Your task to perform on an android device: Search for Italian restaurants on Maps Image 0: 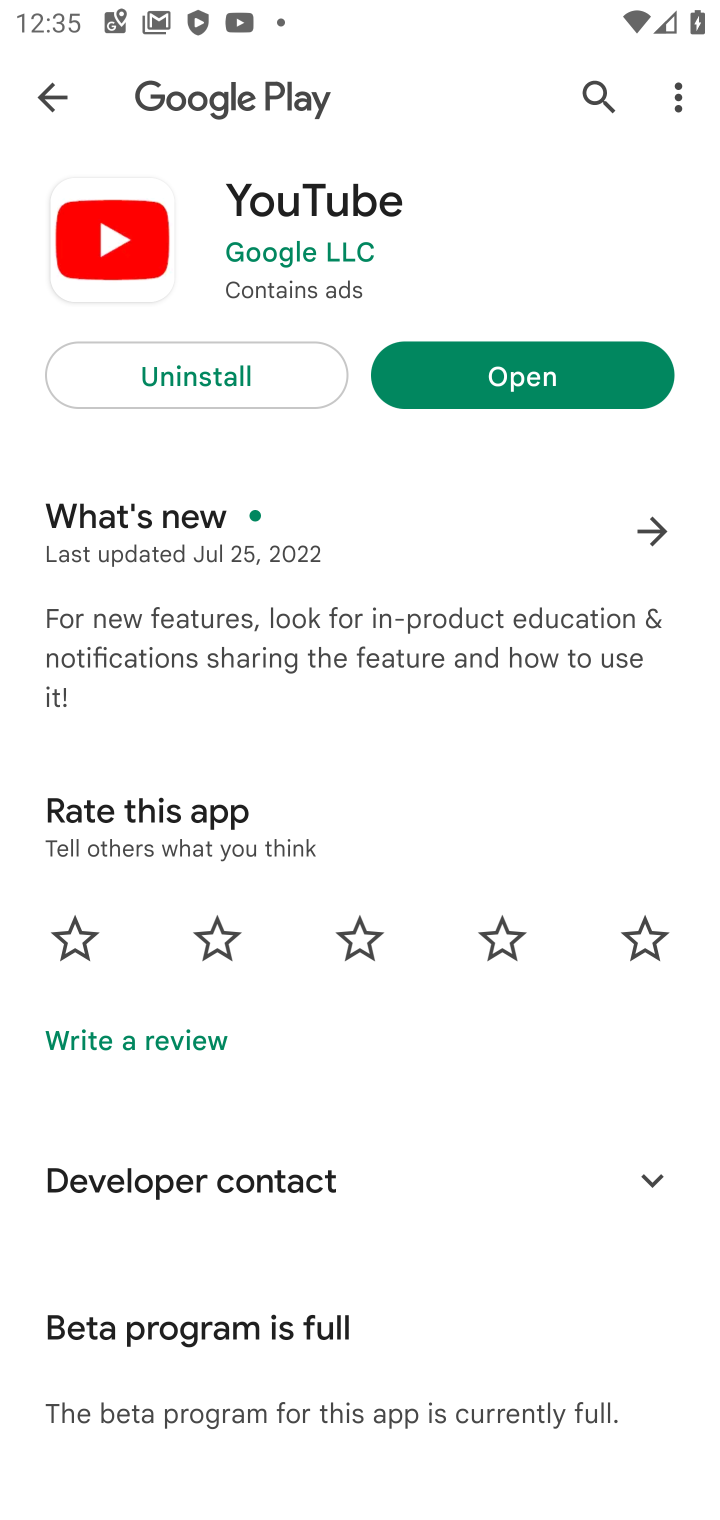
Step 0: press home button
Your task to perform on an android device: Search for Italian restaurants on Maps Image 1: 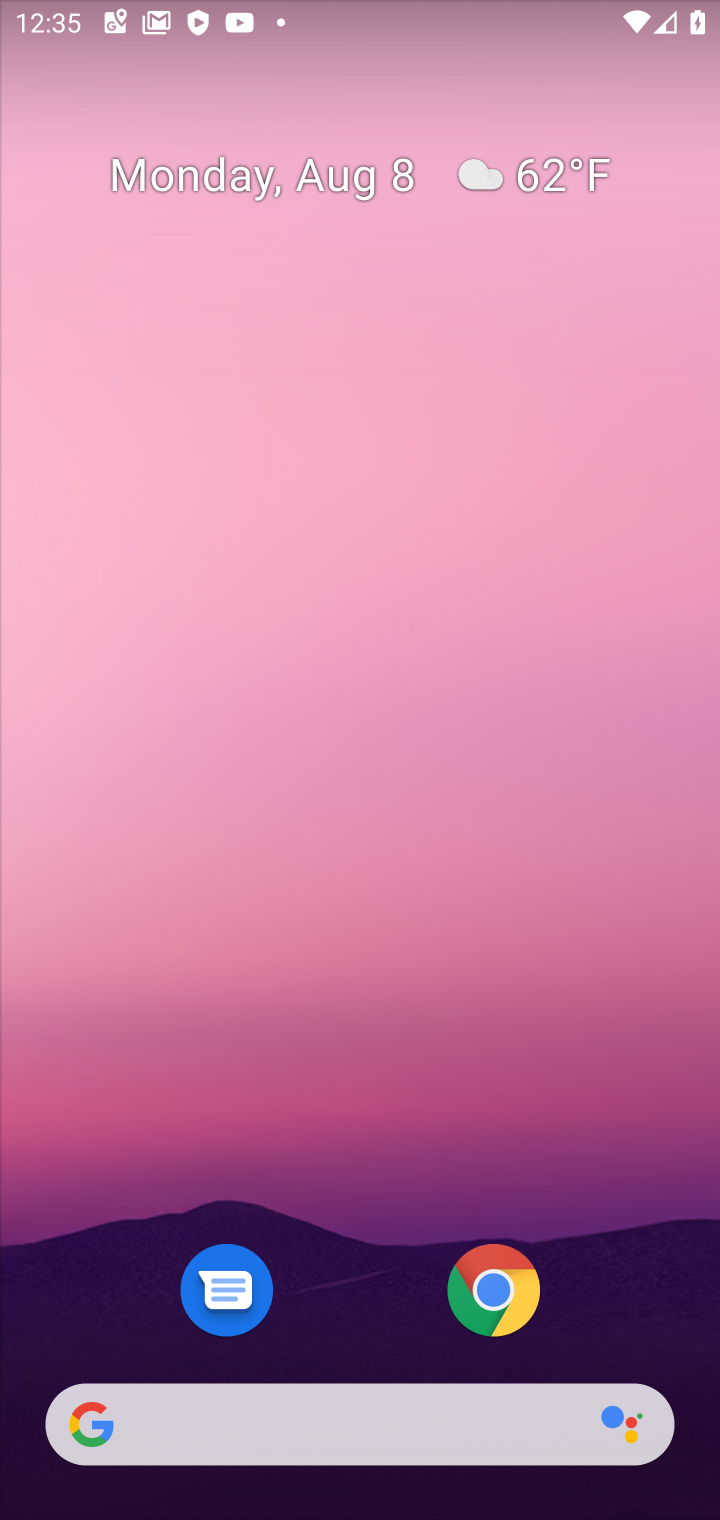
Step 1: drag from (355, 1233) to (415, 56)
Your task to perform on an android device: Search for Italian restaurants on Maps Image 2: 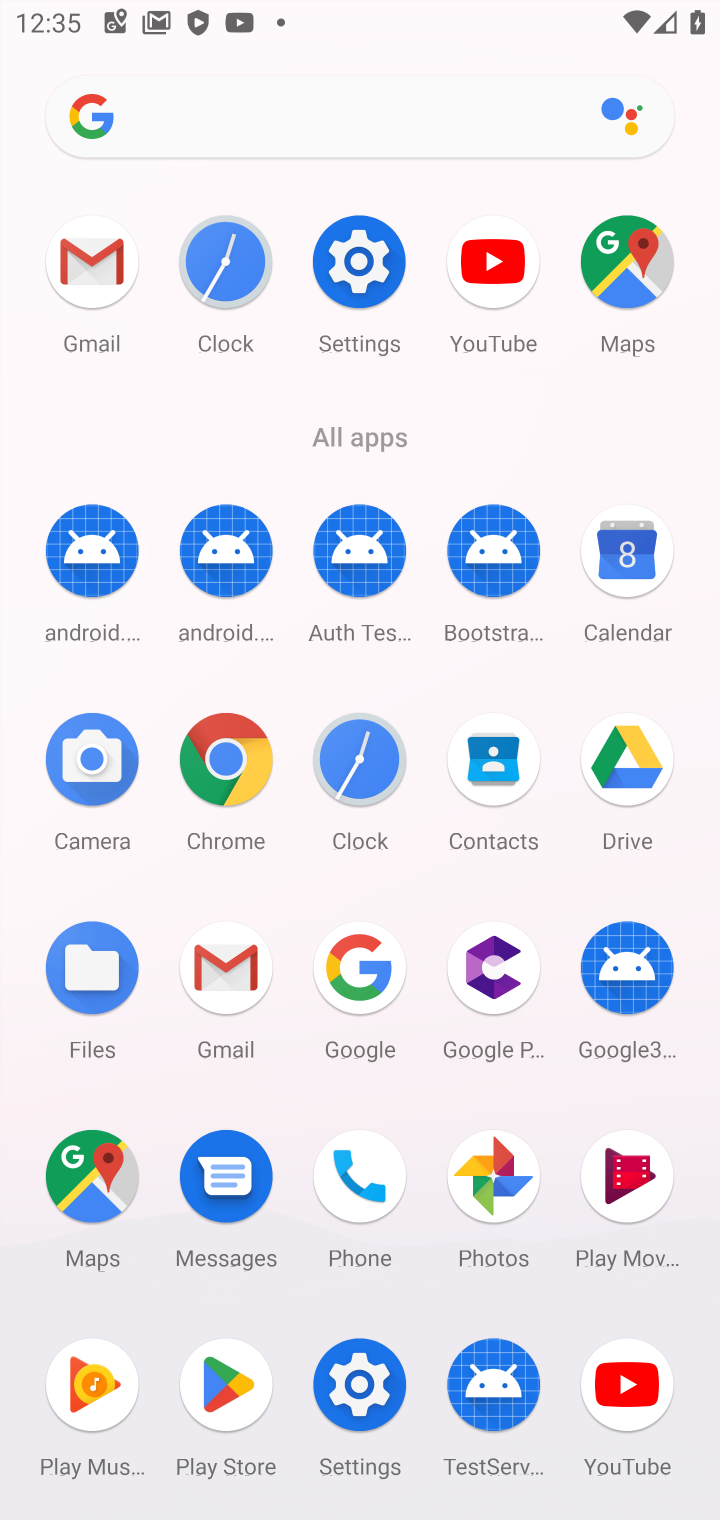
Step 2: click (89, 1196)
Your task to perform on an android device: Search for Italian restaurants on Maps Image 3: 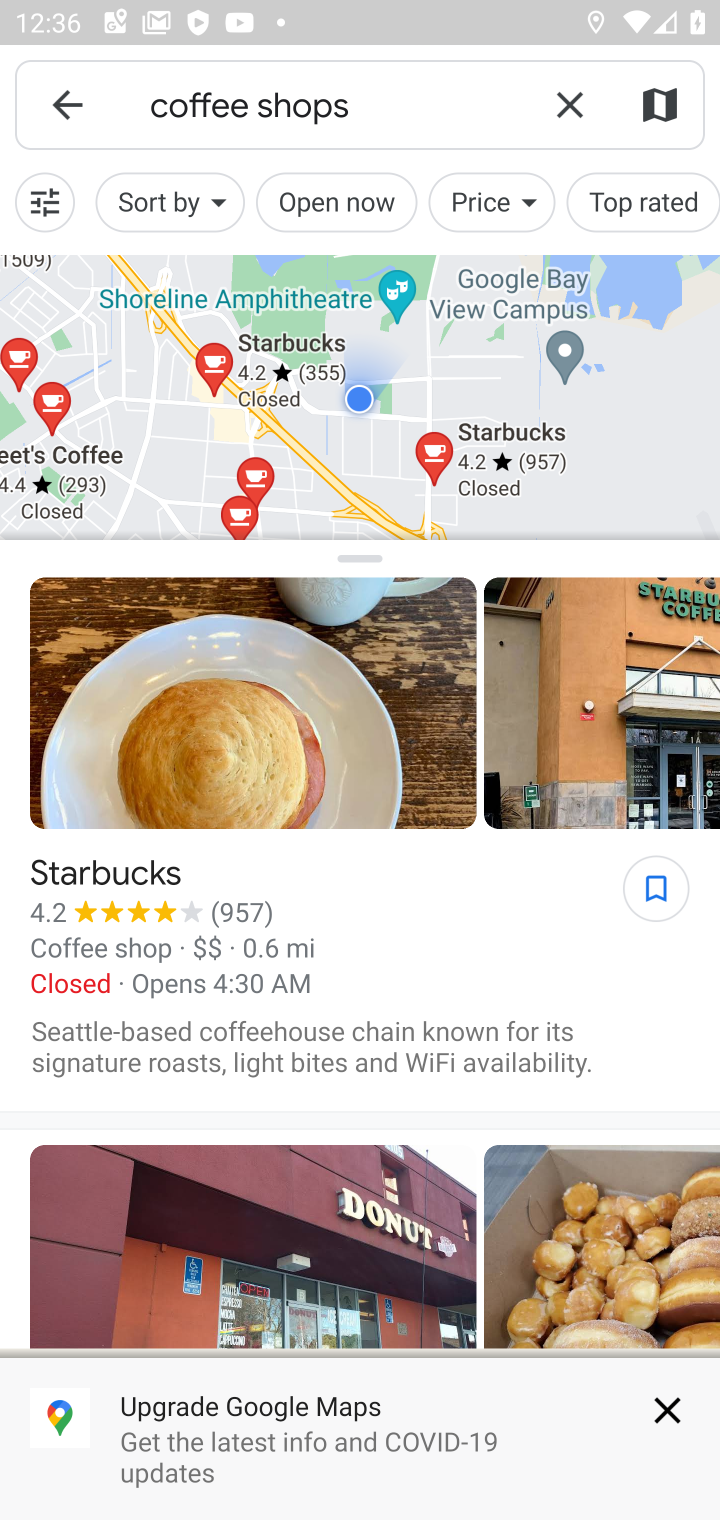
Step 3: click (568, 100)
Your task to perform on an android device: Search for Italian restaurants on Maps Image 4: 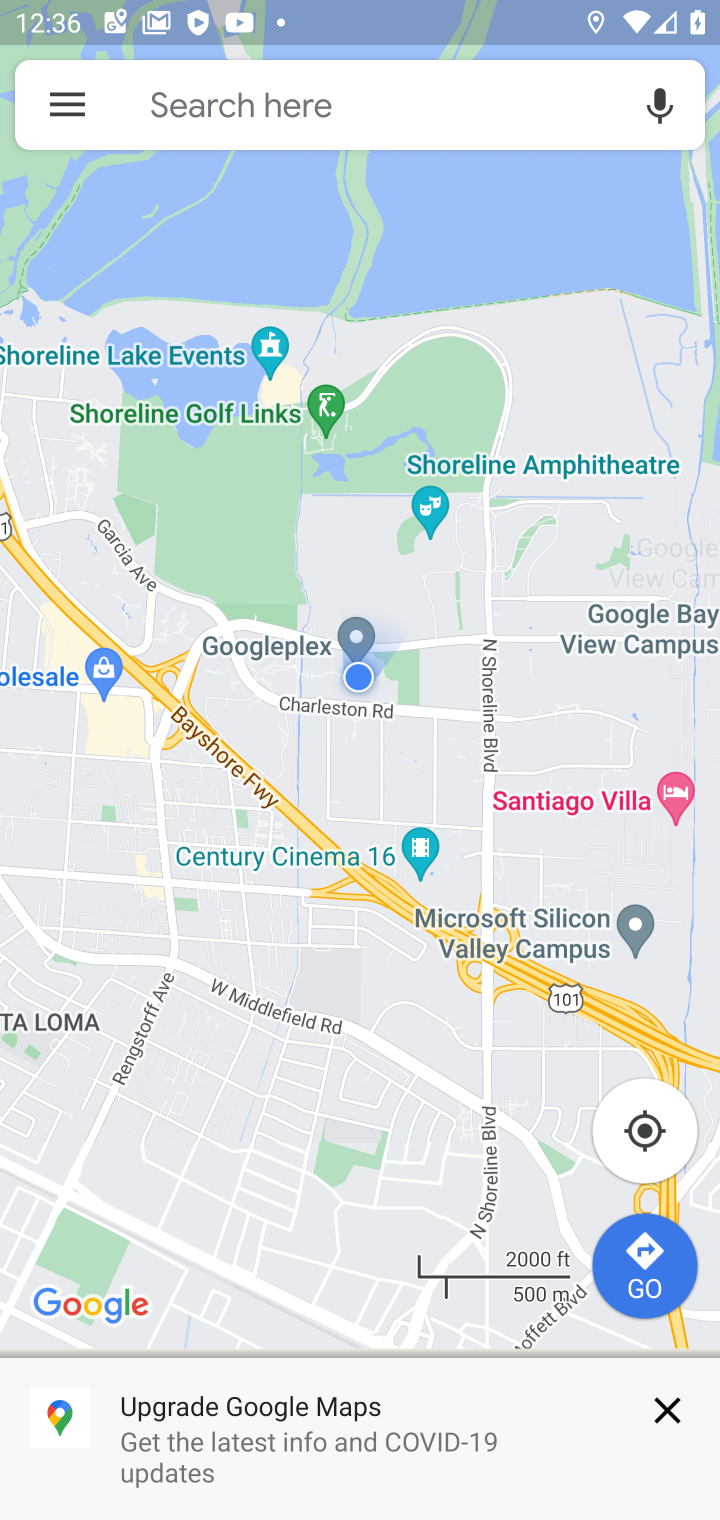
Step 4: click (384, 109)
Your task to perform on an android device: Search for Italian restaurants on Maps Image 5: 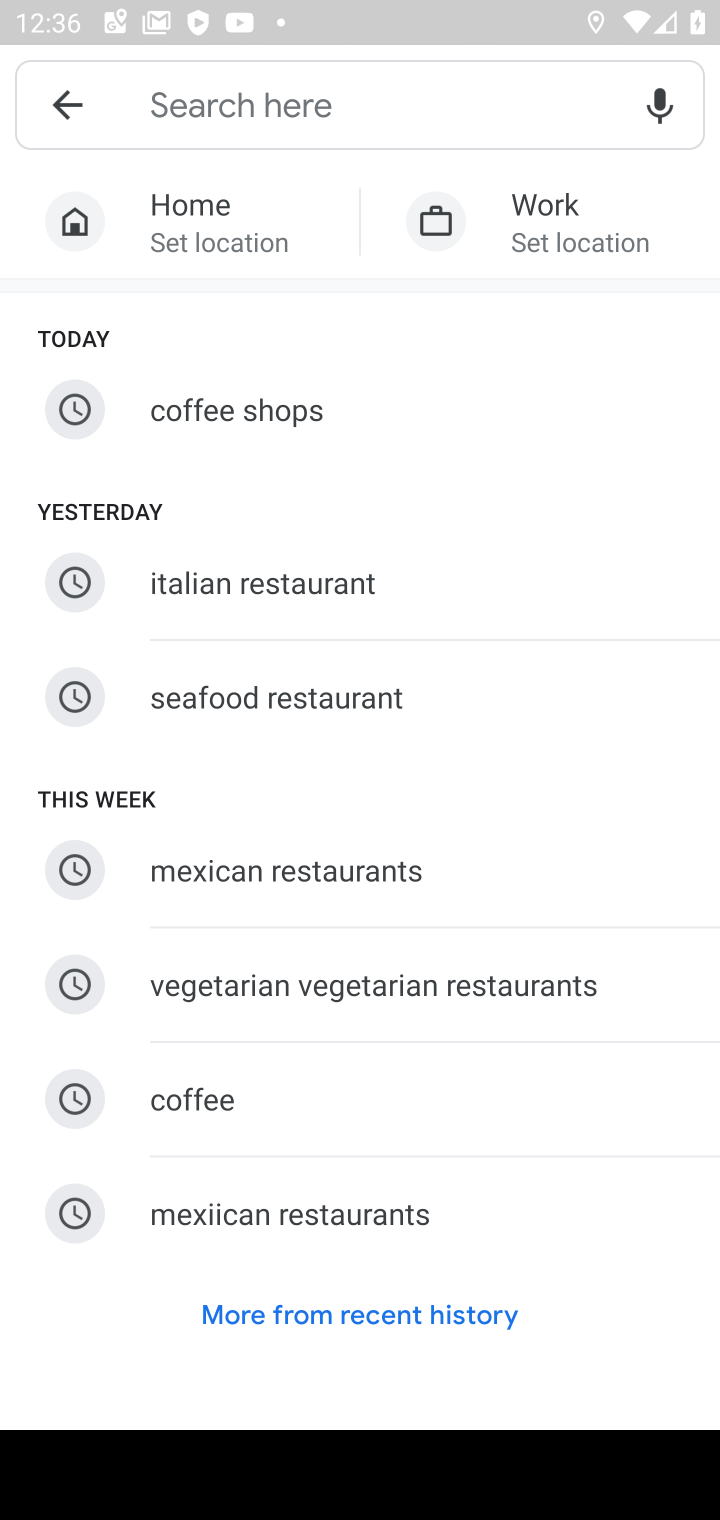
Step 5: type "italian restaurants"
Your task to perform on an android device: Search for Italian restaurants on Maps Image 6: 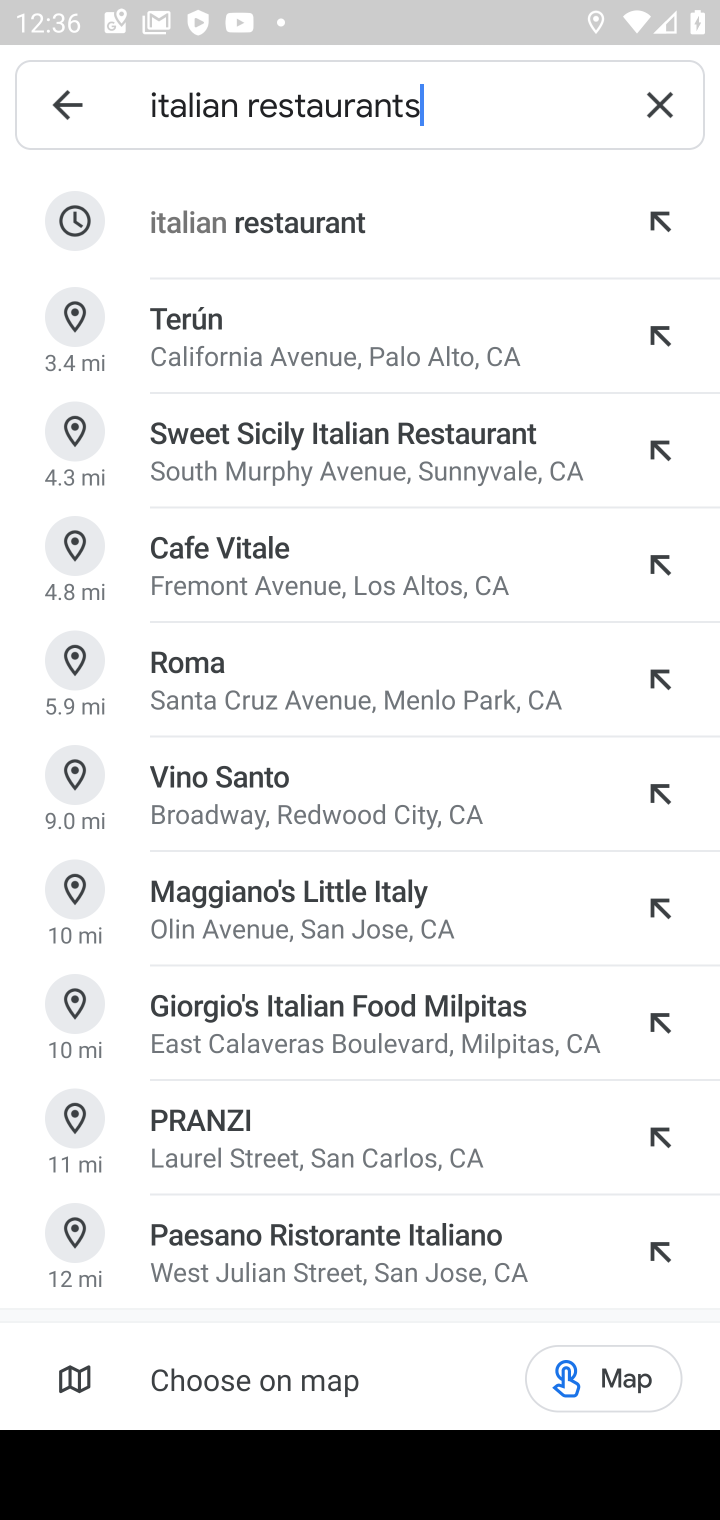
Step 6: click (343, 195)
Your task to perform on an android device: Search for Italian restaurants on Maps Image 7: 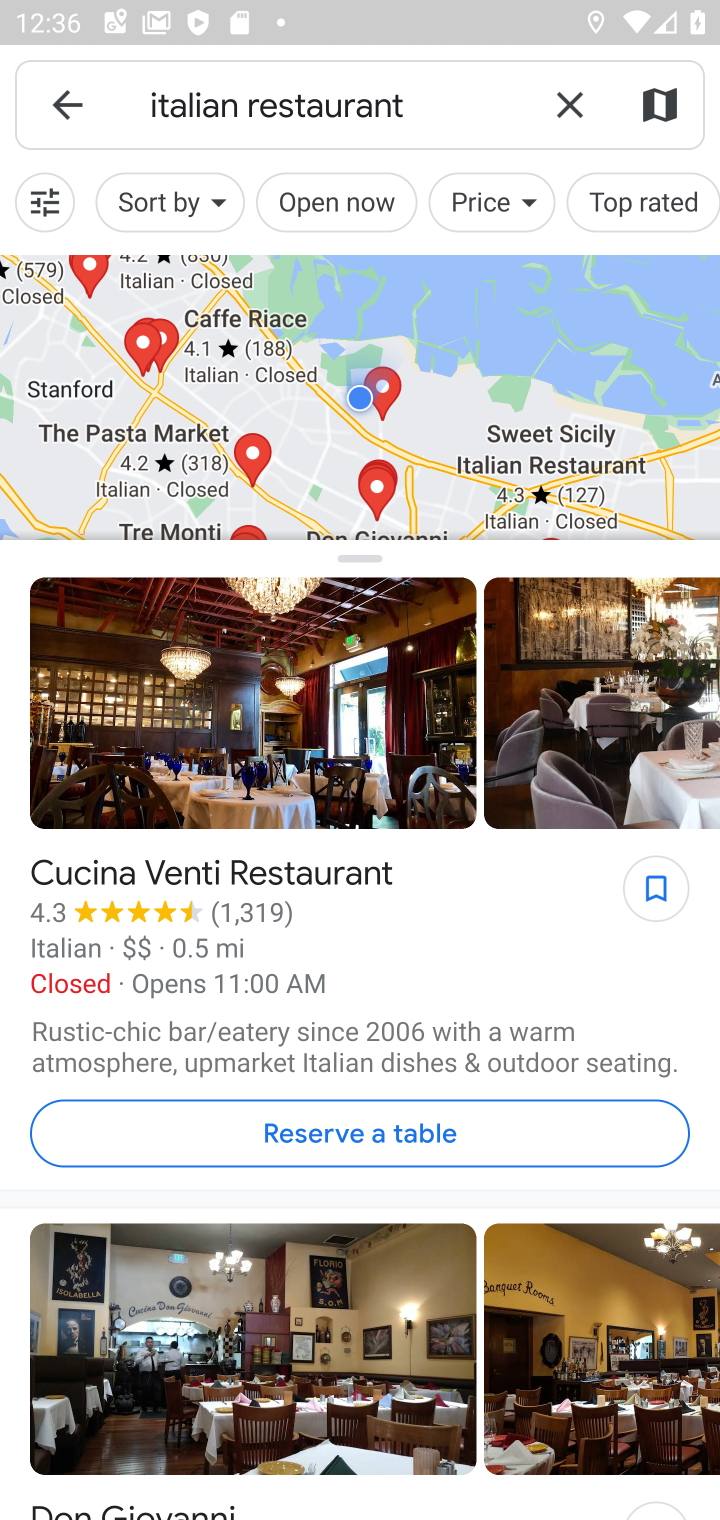
Step 7: task complete